Your task to perform on an android device: turn smart compose on in the gmail app Image 0: 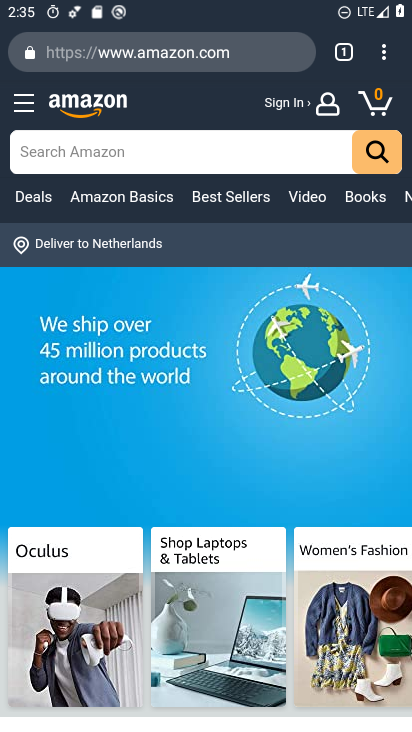
Step 0: press home button
Your task to perform on an android device: turn smart compose on in the gmail app Image 1: 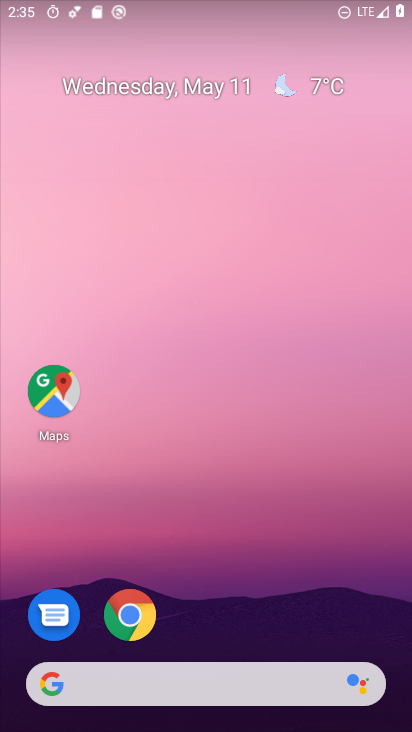
Step 1: drag from (197, 687) to (200, 204)
Your task to perform on an android device: turn smart compose on in the gmail app Image 2: 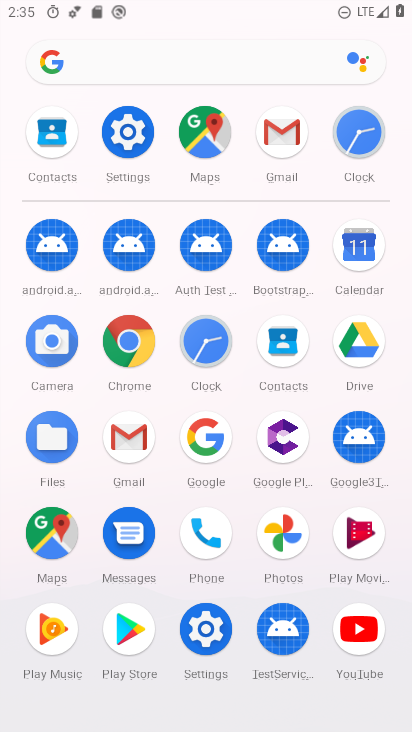
Step 2: click (113, 459)
Your task to perform on an android device: turn smart compose on in the gmail app Image 3: 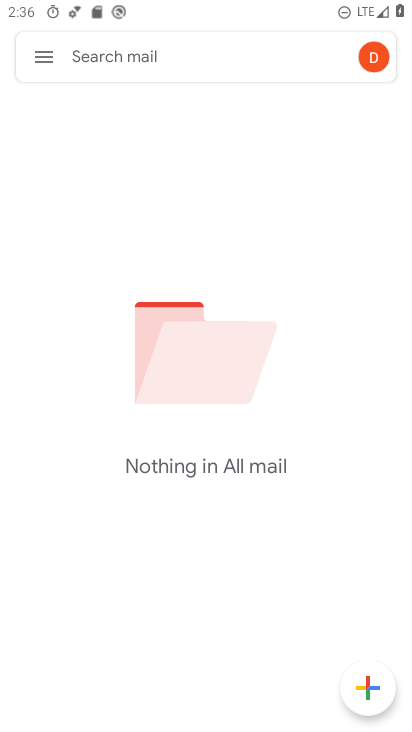
Step 3: click (42, 55)
Your task to perform on an android device: turn smart compose on in the gmail app Image 4: 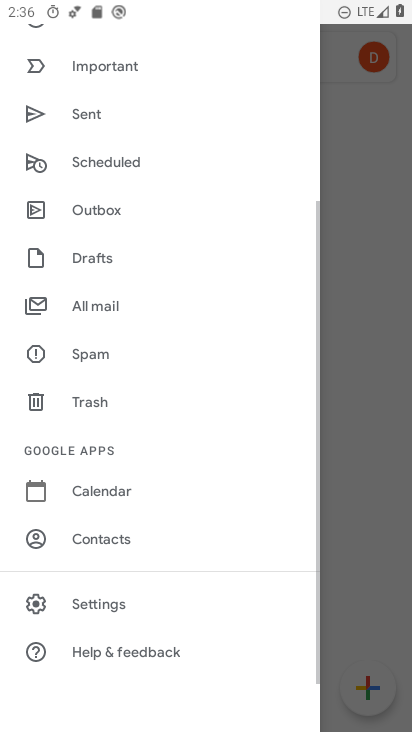
Step 4: click (80, 598)
Your task to perform on an android device: turn smart compose on in the gmail app Image 5: 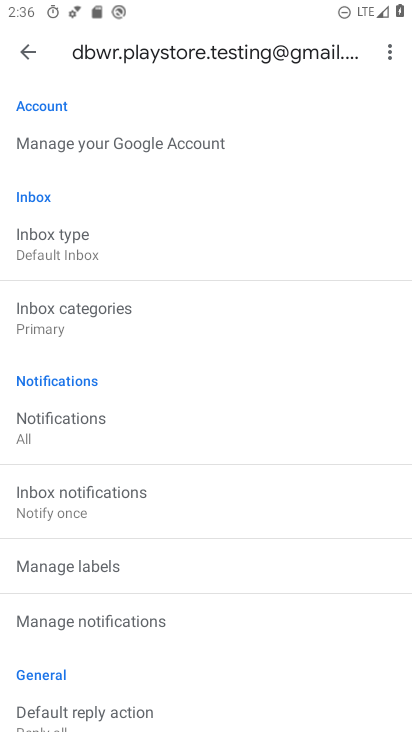
Step 5: task complete